Your task to perform on an android device: turn off data saver in the chrome app Image 0: 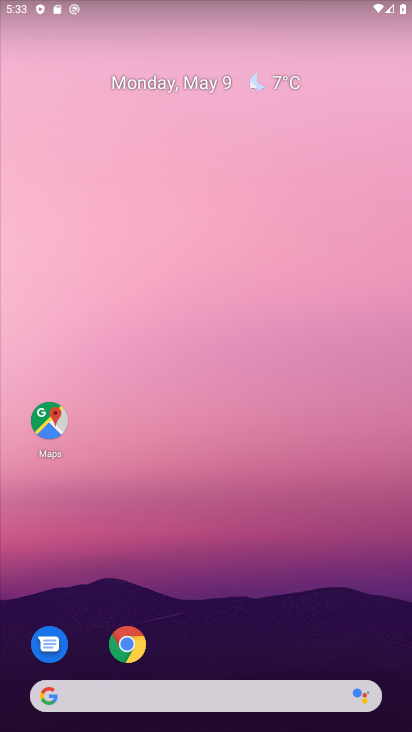
Step 0: drag from (214, 545) to (205, 83)
Your task to perform on an android device: turn off data saver in the chrome app Image 1: 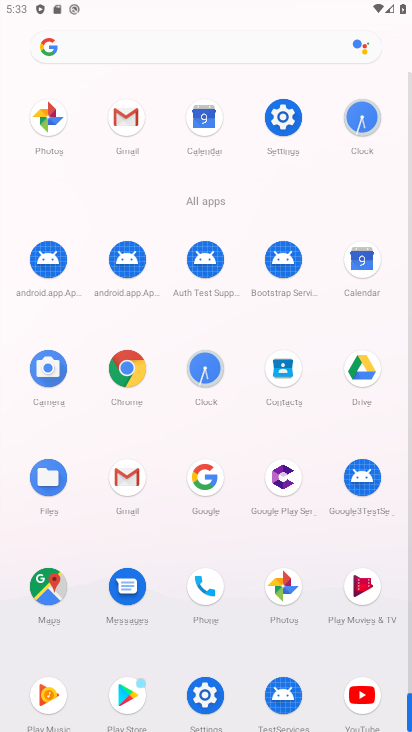
Step 1: click (125, 366)
Your task to perform on an android device: turn off data saver in the chrome app Image 2: 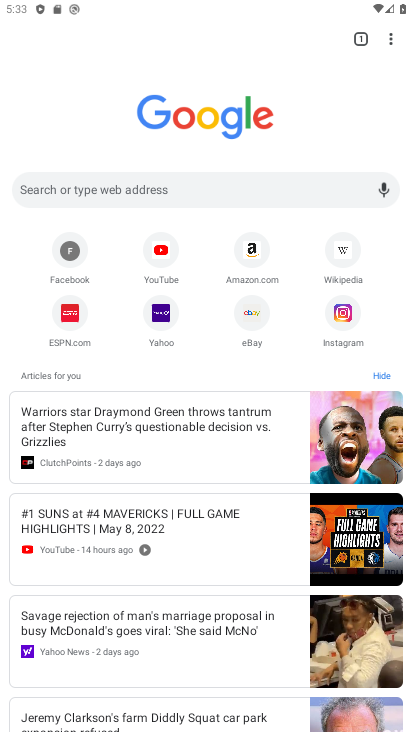
Step 2: click (398, 38)
Your task to perform on an android device: turn off data saver in the chrome app Image 3: 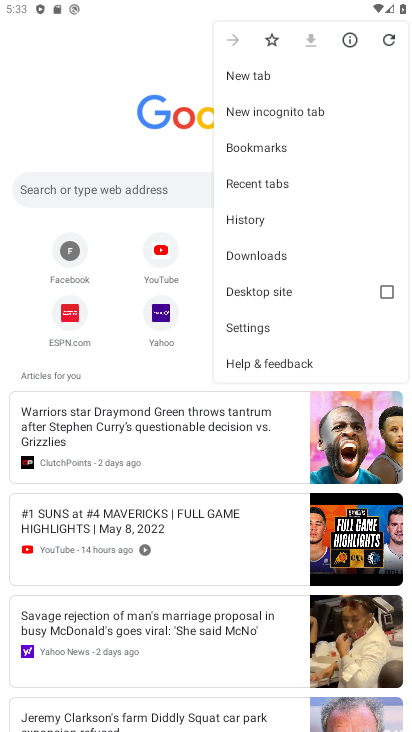
Step 3: click (252, 325)
Your task to perform on an android device: turn off data saver in the chrome app Image 4: 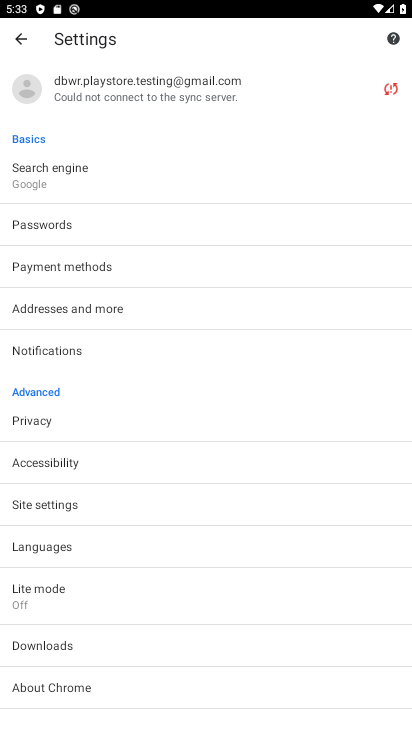
Step 4: click (53, 591)
Your task to perform on an android device: turn off data saver in the chrome app Image 5: 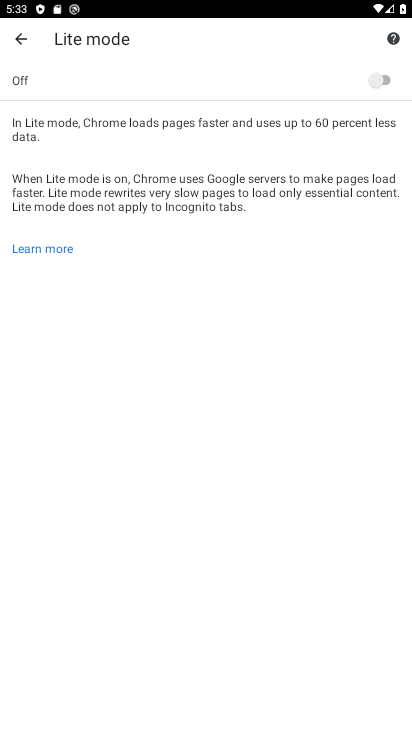
Step 5: task complete